Your task to perform on an android device: Search for Italian restaurants on Maps Image 0: 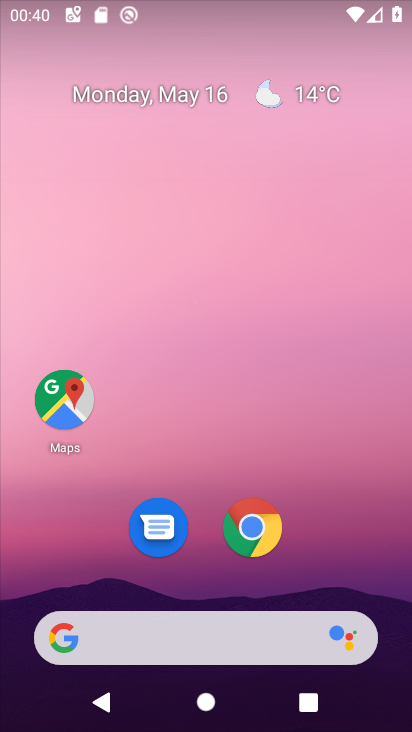
Step 0: click (66, 387)
Your task to perform on an android device: Search for Italian restaurants on Maps Image 1: 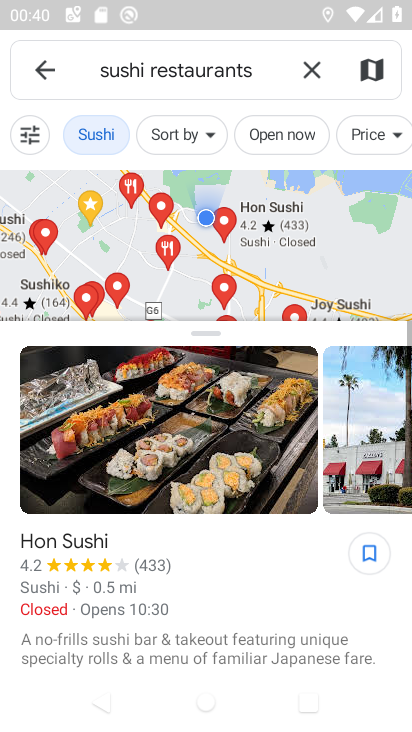
Step 1: click (311, 73)
Your task to perform on an android device: Search for Italian restaurants on Maps Image 2: 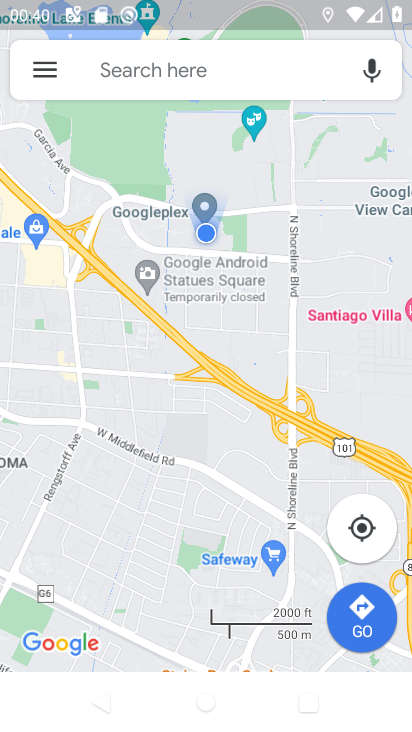
Step 2: click (177, 74)
Your task to perform on an android device: Search for Italian restaurants on Maps Image 3: 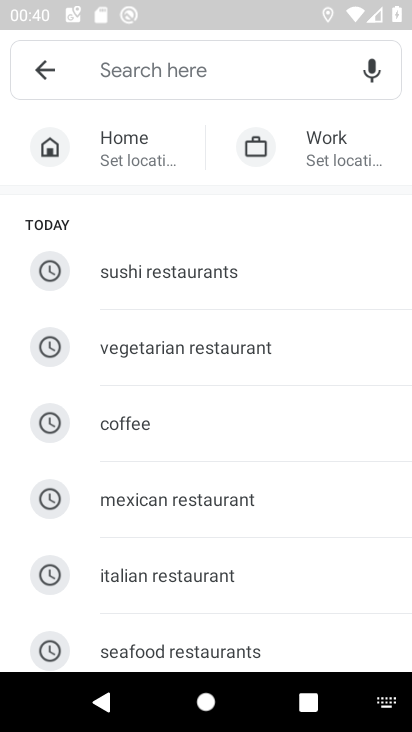
Step 3: type "italian restaurants"
Your task to perform on an android device: Search for Italian restaurants on Maps Image 4: 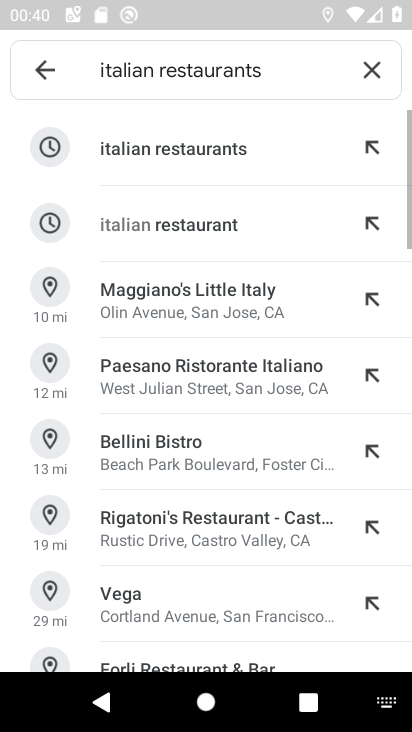
Step 4: click (245, 151)
Your task to perform on an android device: Search for Italian restaurants on Maps Image 5: 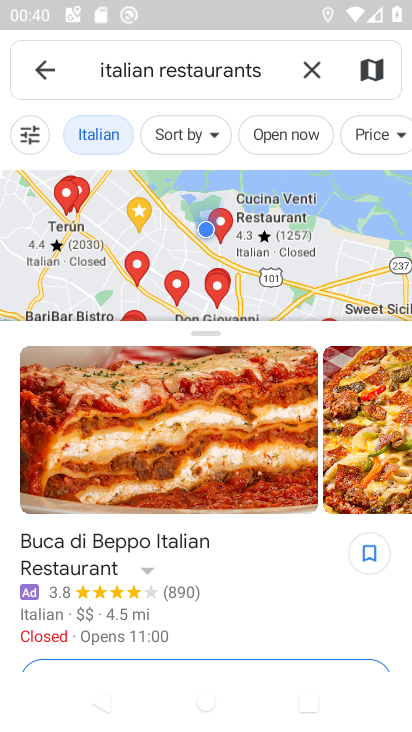
Step 5: task complete